Your task to perform on an android device: open app "Messenger Lite" Image 0: 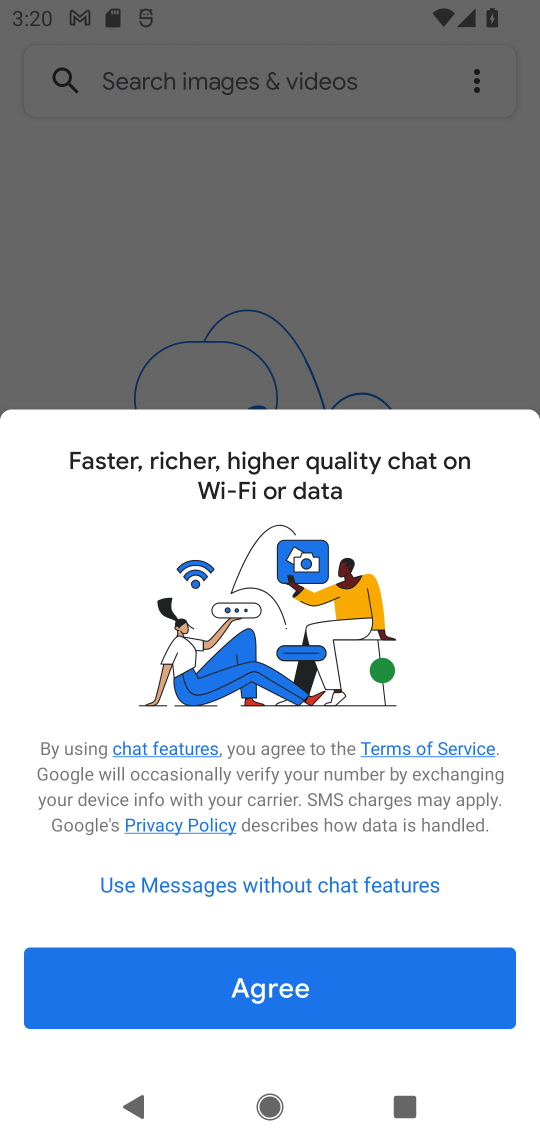
Step 0: press back button
Your task to perform on an android device: open app "Messenger Lite" Image 1: 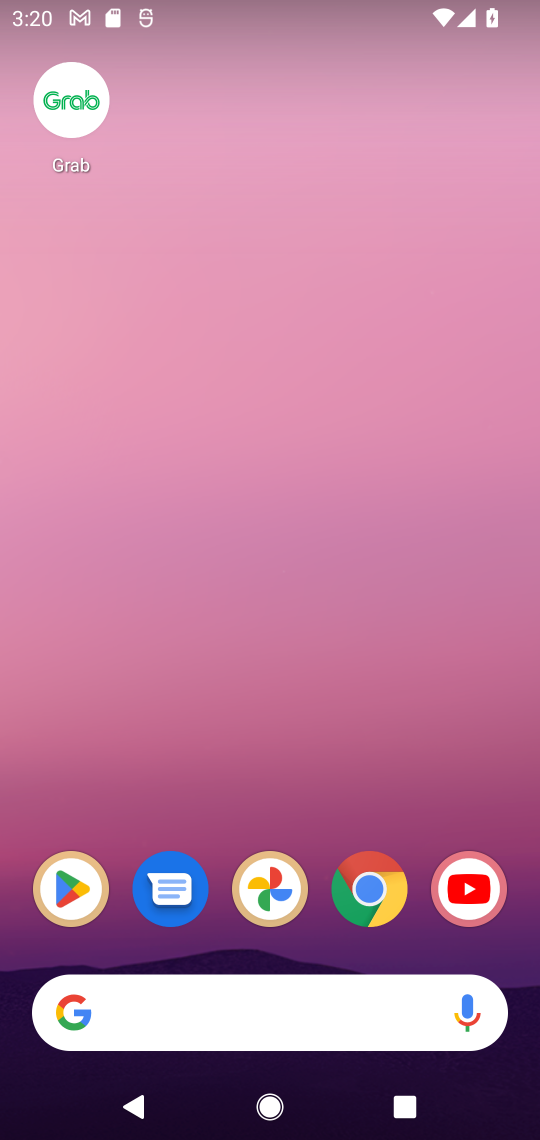
Step 1: drag from (332, 1031) to (380, 334)
Your task to perform on an android device: open app "Messenger Lite" Image 2: 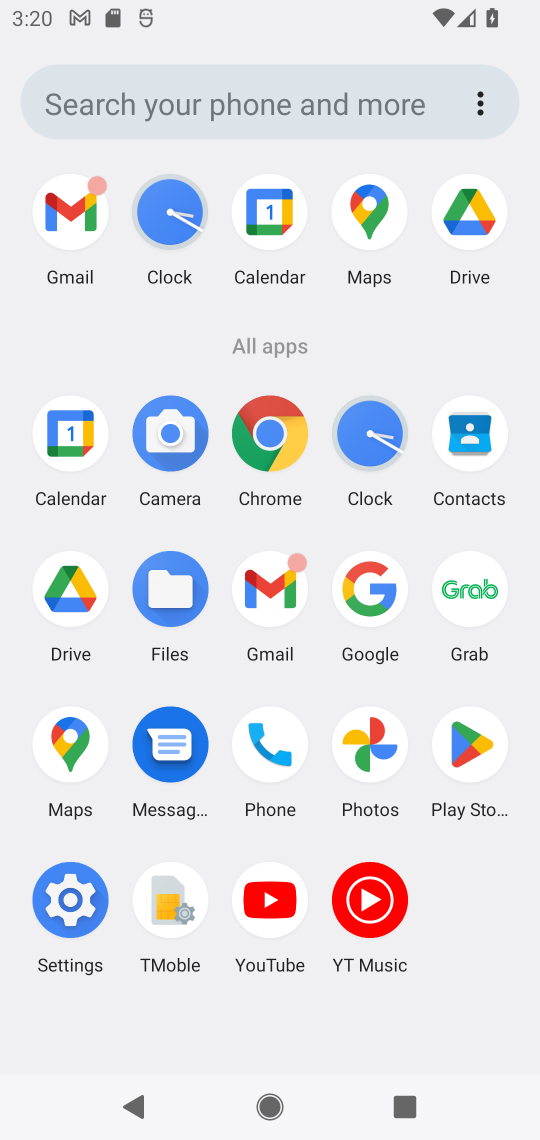
Step 2: click (468, 719)
Your task to perform on an android device: open app "Messenger Lite" Image 3: 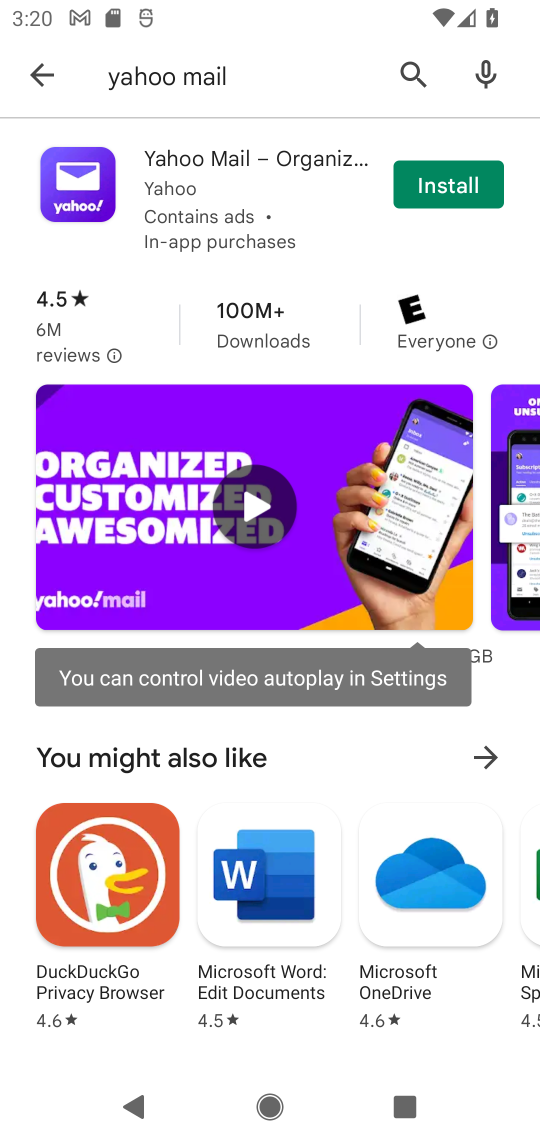
Step 3: click (414, 84)
Your task to perform on an android device: open app "Messenger Lite" Image 4: 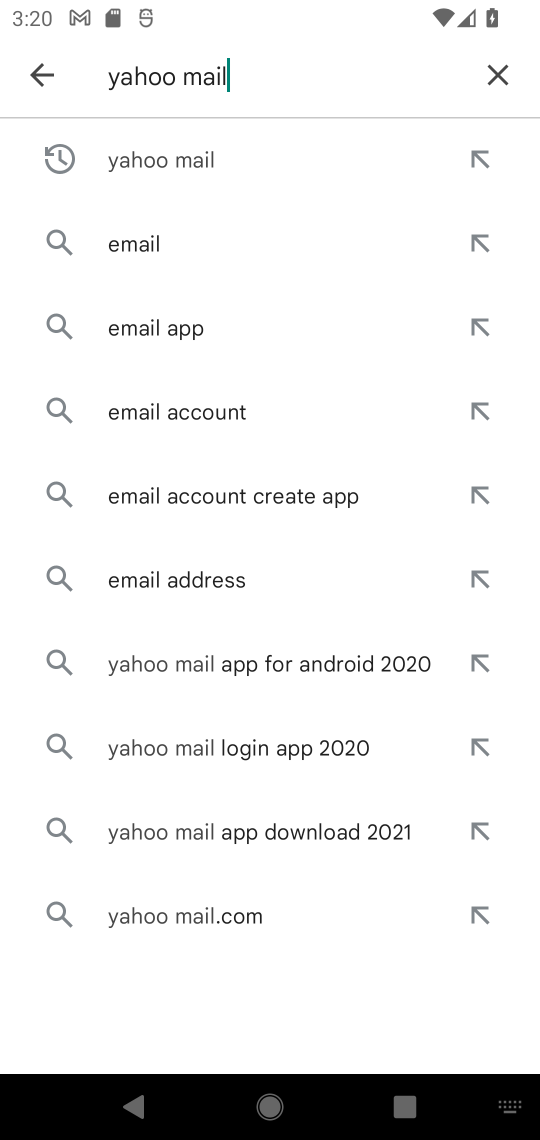
Step 4: click (490, 76)
Your task to perform on an android device: open app "Messenger Lite" Image 5: 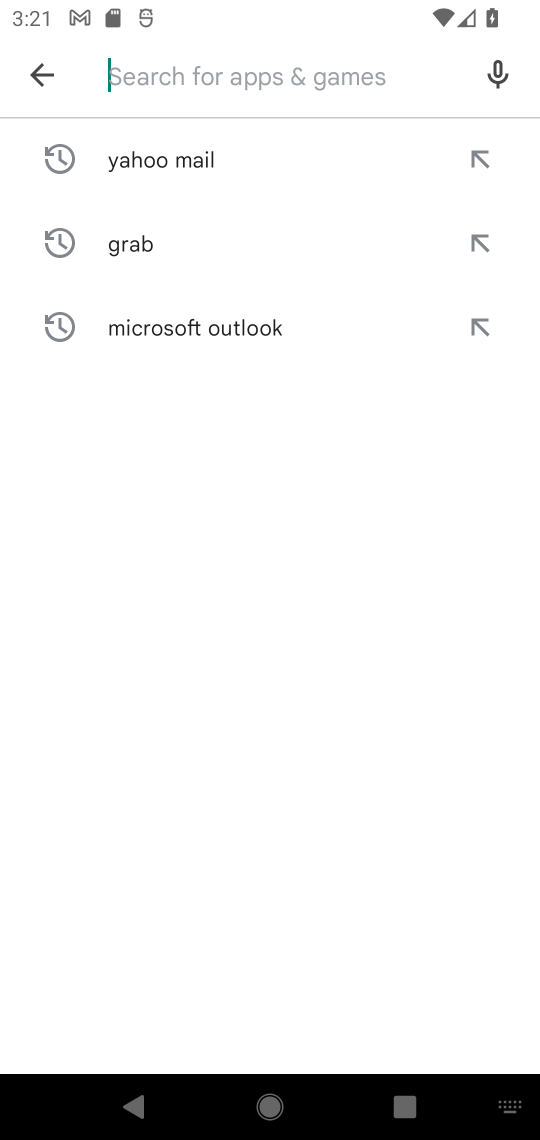
Step 5: type "Messenger Lite"
Your task to perform on an android device: open app "Messenger Lite" Image 6: 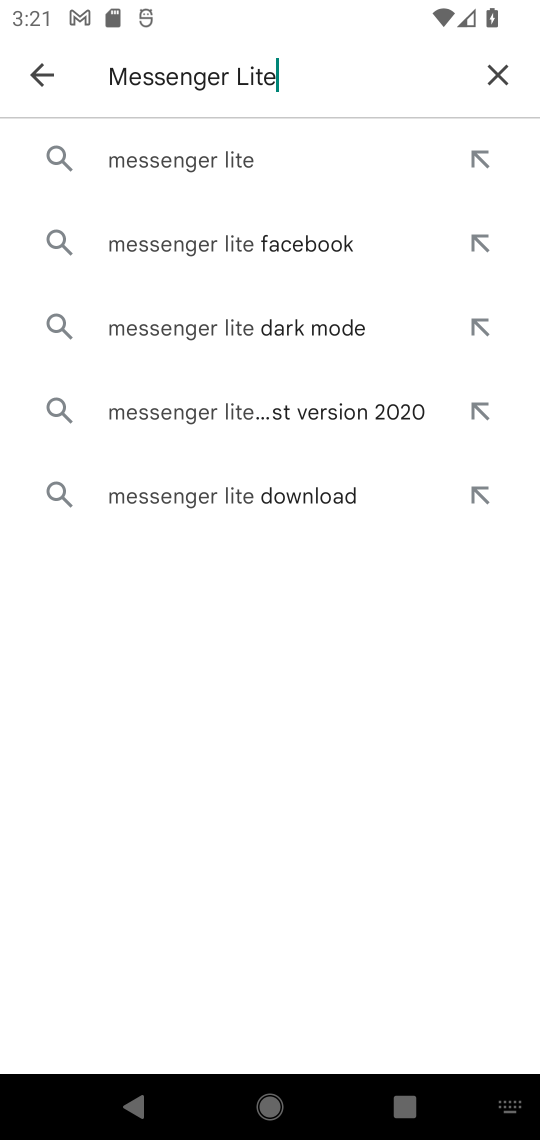
Step 6: click (208, 150)
Your task to perform on an android device: open app "Messenger Lite" Image 7: 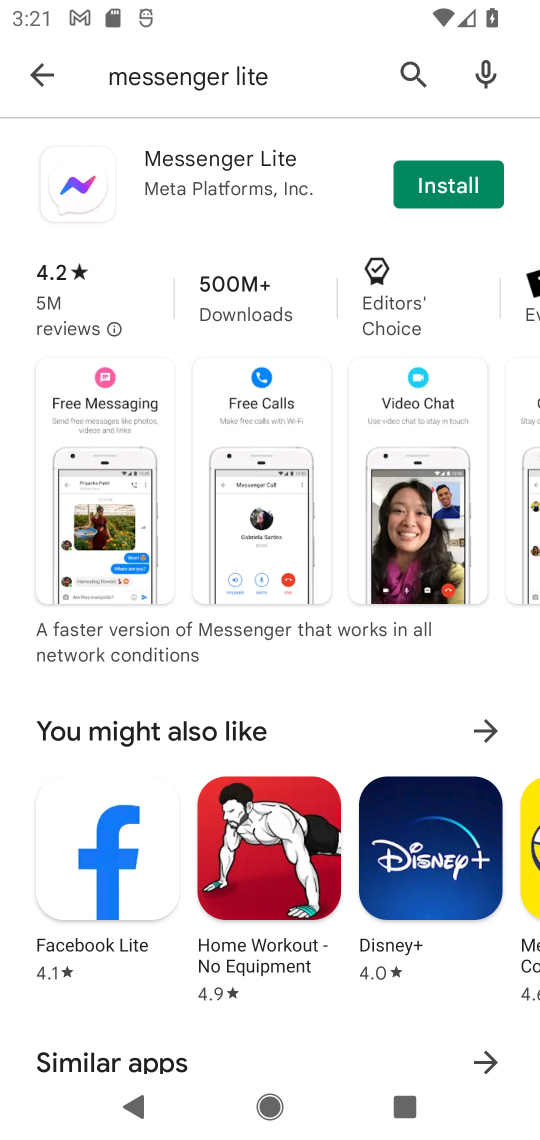
Step 7: task complete